Your task to perform on an android device: Go to accessibility settings Image 0: 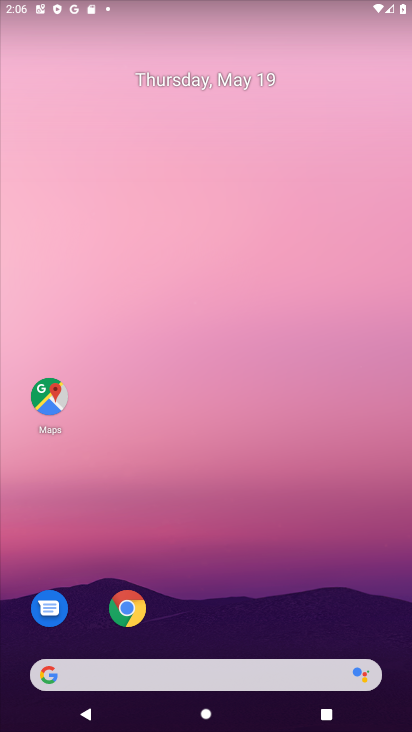
Step 0: drag from (202, 625) to (249, 130)
Your task to perform on an android device: Go to accessibility settings Image 1: 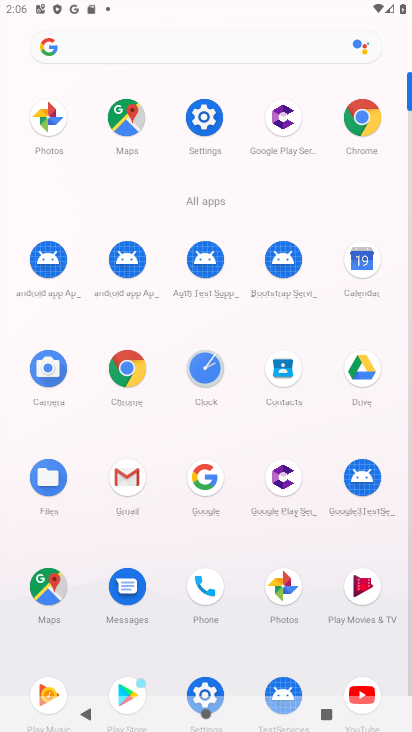
Step 1: click (199, 108)
Your task to perform on an android device: Go to accessibility settings Image 2: 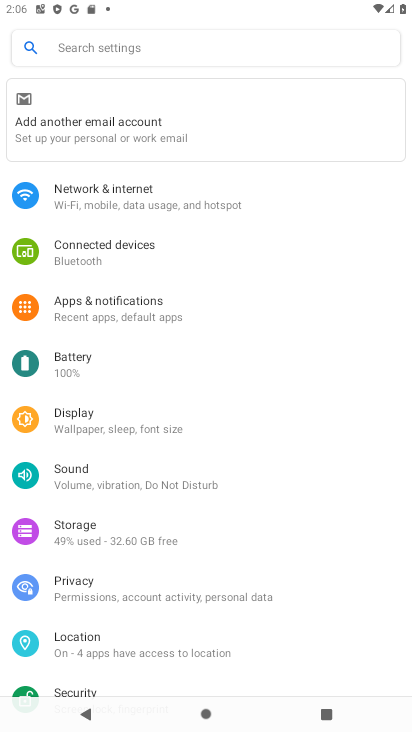
Step 2: drag from (197, 654) to (188, 349)
Your task to perform on an android device: Go to accessibility settings Image 3: 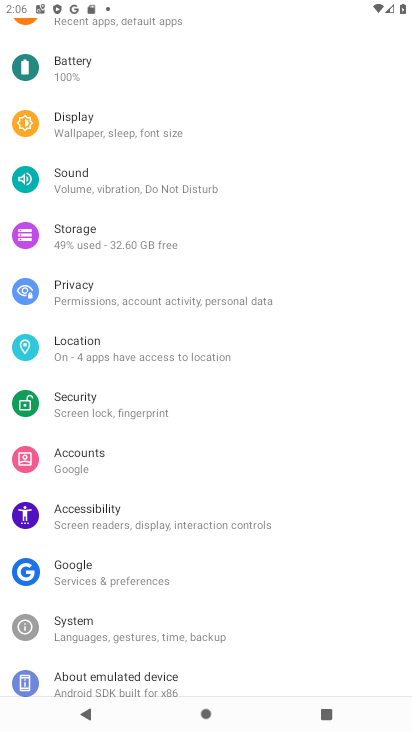
Step 3: click (174, 518)
Your task to perform on an android device: Go to accessibility settings Image 4: 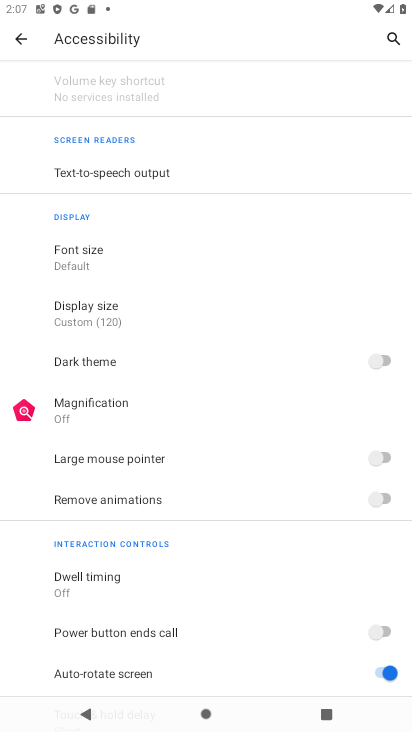
Step 4: task complete